Your task to perform on an android device: Open Chrome and go to settings Image 0: 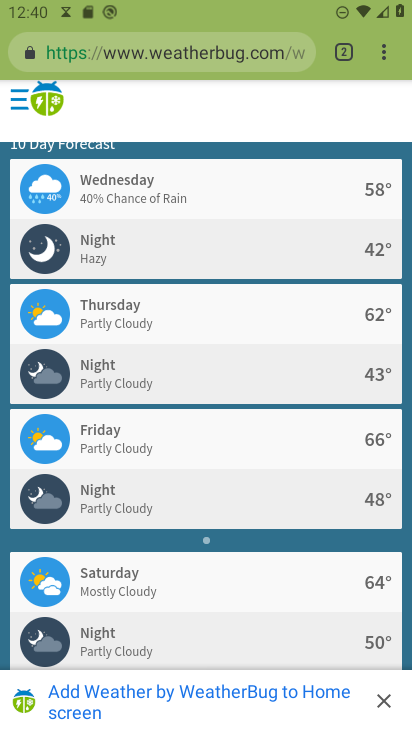
Step 0: press home button
Your task to perform on an android device: Open Chrome and go to settings Image 1: 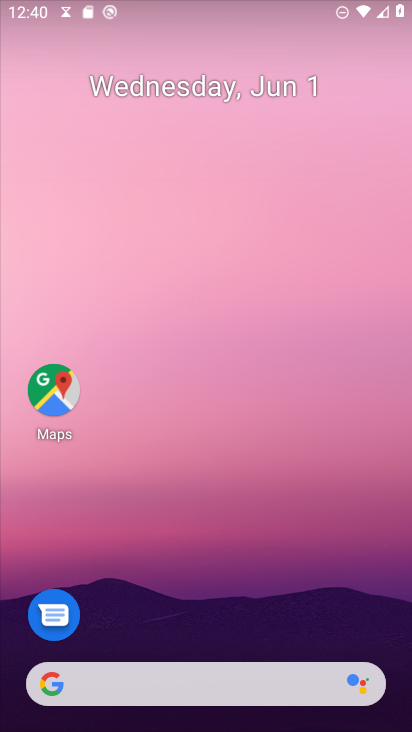
Step 1: drag from (304, 550) to (380, 30)
Your task to perform on an android device: Open Chrome and go to settings Image 2: 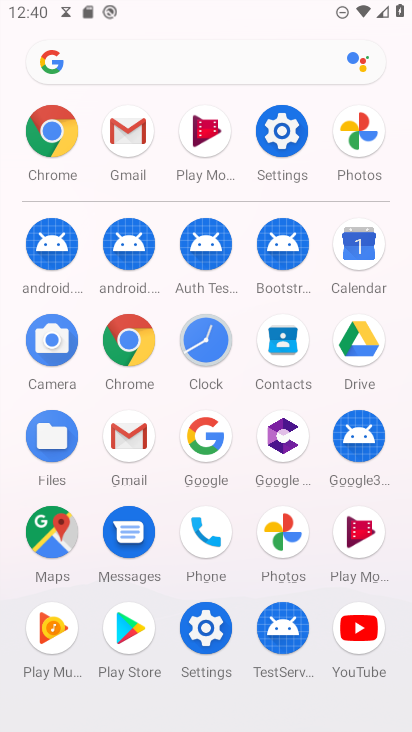
Step 2: click (127, 346)
Your task to perform on an android device: Open Chrome and go to settings Image 3: 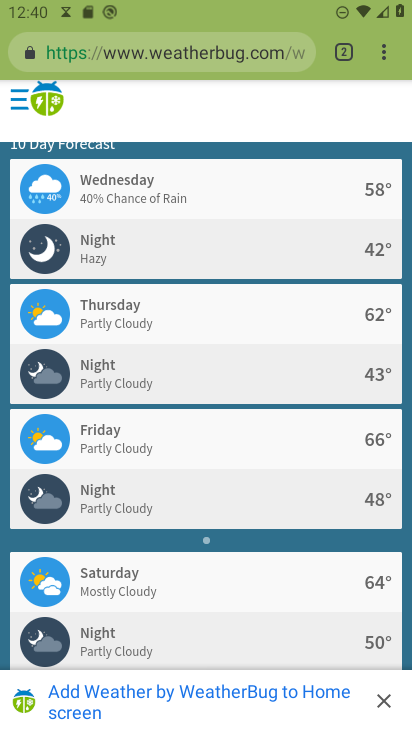
Step 3: click (384, 58)
Your task to perform on an android device: Open Chrome and go to settings Image 4: 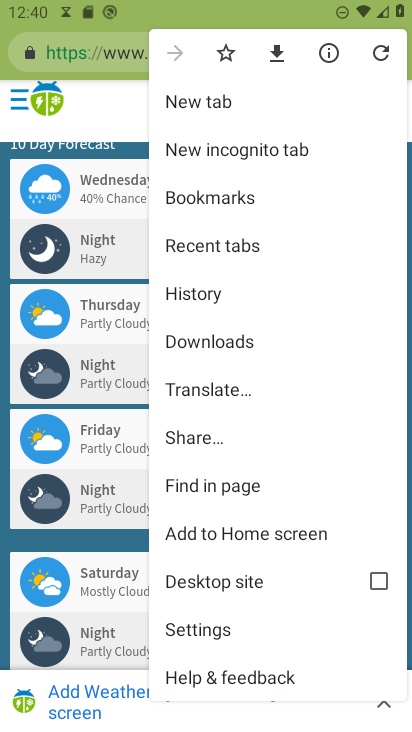
Step 4: click (235, 637)
Your task to perform on an android device: Open Chrome and go to settings Image 5: 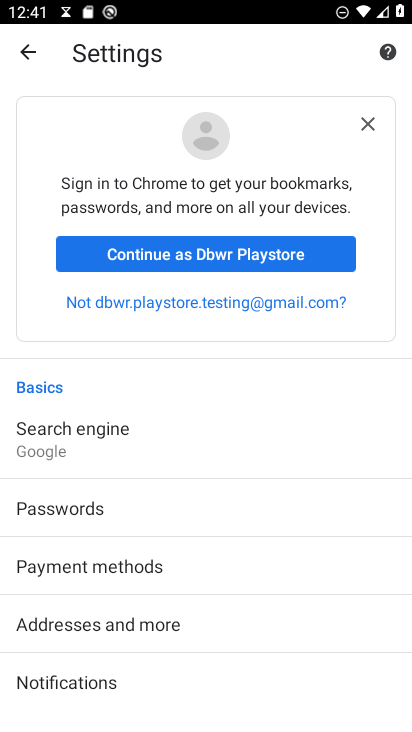
Step 5: task complete